Your task to perform on an android device: clear all cookies in the chrome app Image 0: 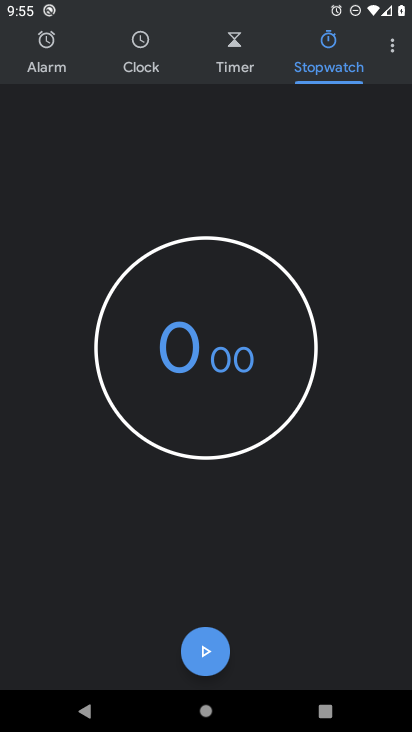
Step 0: press home button
Your task to perform on an android device: clear all cookies in the chrome app Image 1: 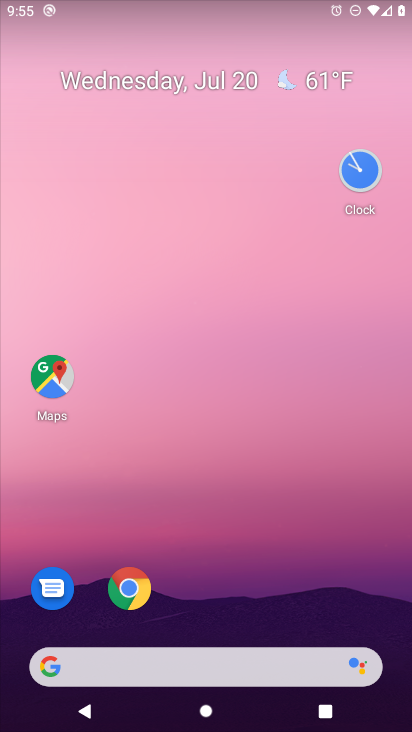
Step 1: click (135, 596)
Your task to perform on an android device: clear all cookies in the chrome app Image 2: 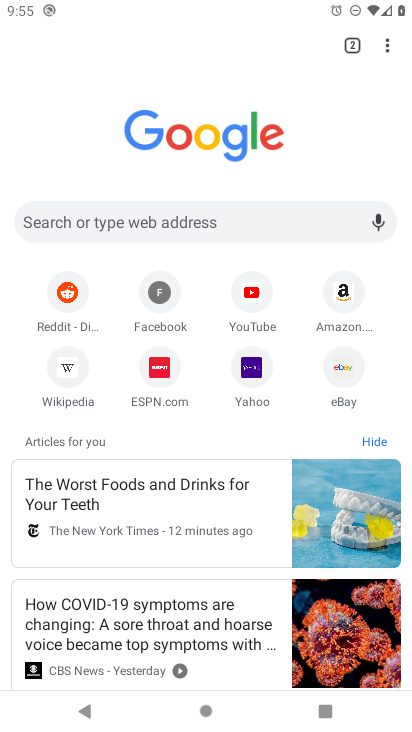
Step 2: click (387, 41)
Your task to perform on an android device: clear all cookies in the chrome app Image 3: 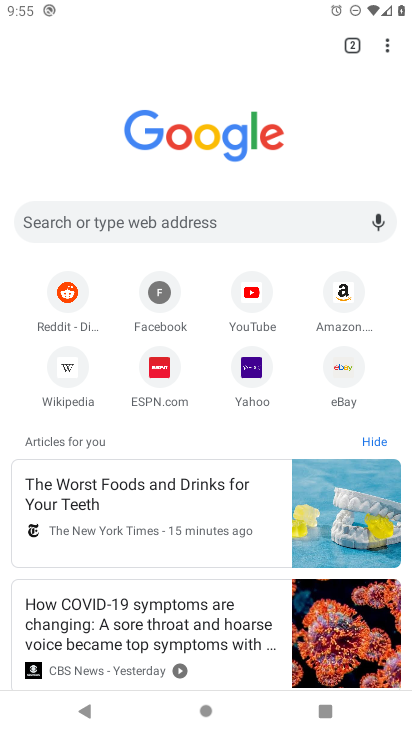
Step 3: click (388, 45)
Your task to perform on an android device: clear all cookies in the chrome app Image 4: 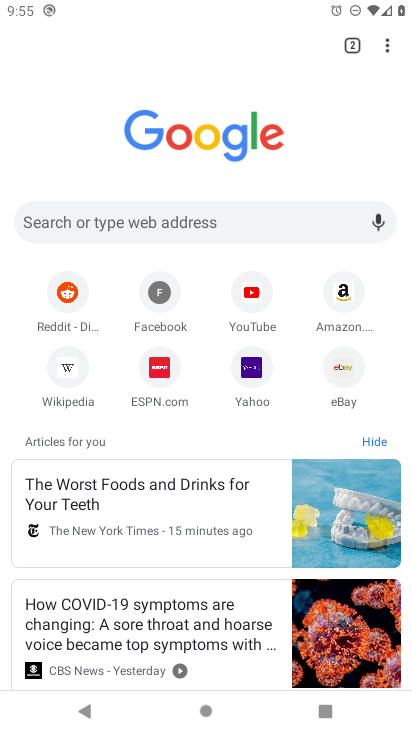
Step 4: click (394, 41)
Your task to perform on an android device: clear all cookies in the chrome app Image 5: 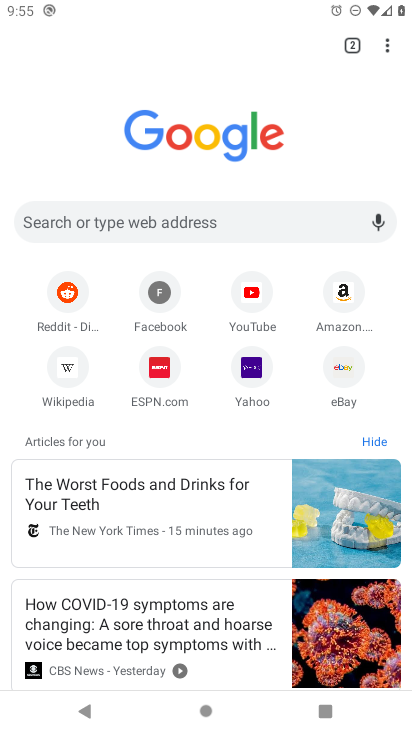
Step 5: click (375, 57)
Your task to perform on an android device: clear all cookies in the chrome app Image 6: 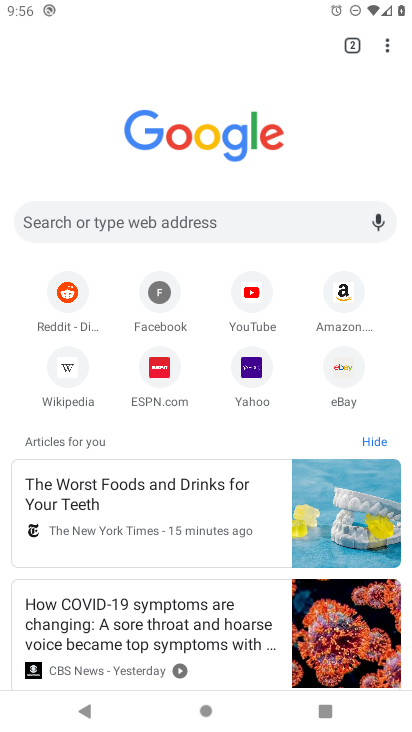
Step 6: task complete